Your task to perform on an android device: Open network settings Image 0: 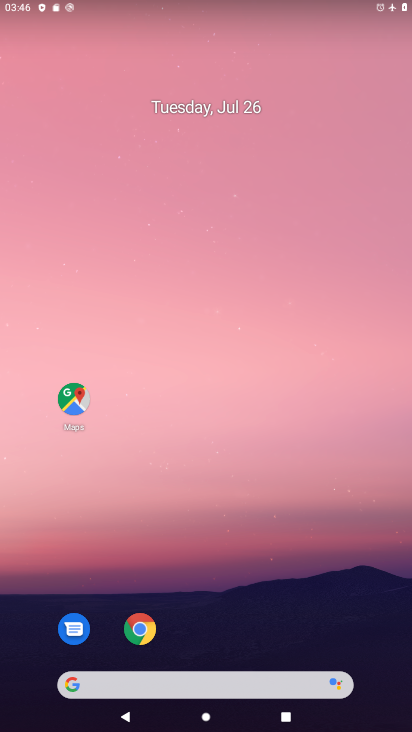
Step 0: drag from (270, 603) to (301, 36)
Your task to perform on an android device: Open network settings Image 1: 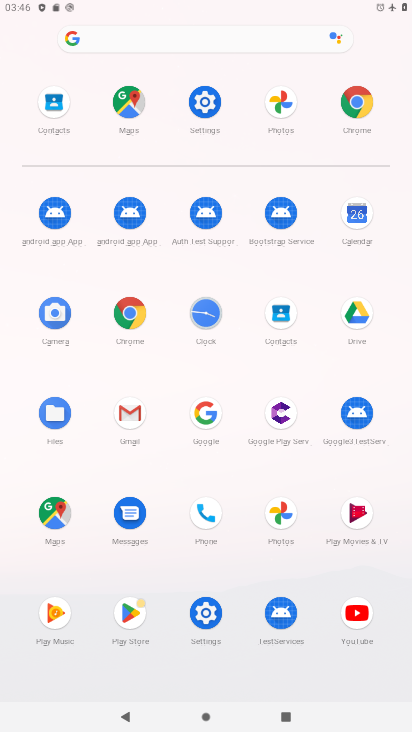
Step 1: click (202, 95)
Your task to perform on an android device: Open network settings Image 2: 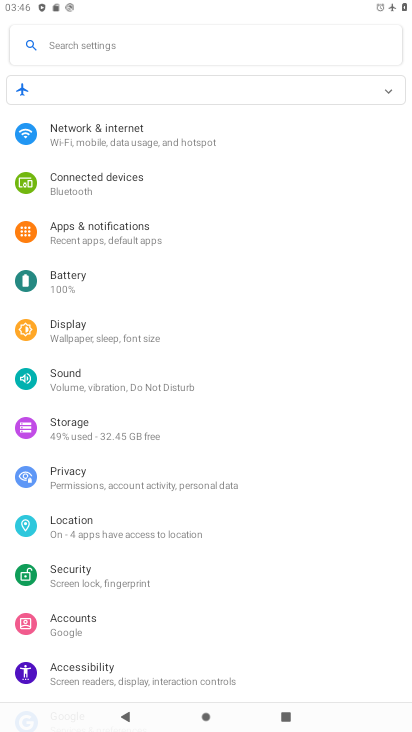
Step 2: click (94, 127)
Your task to perform on an android device: Open network settings Image 3: 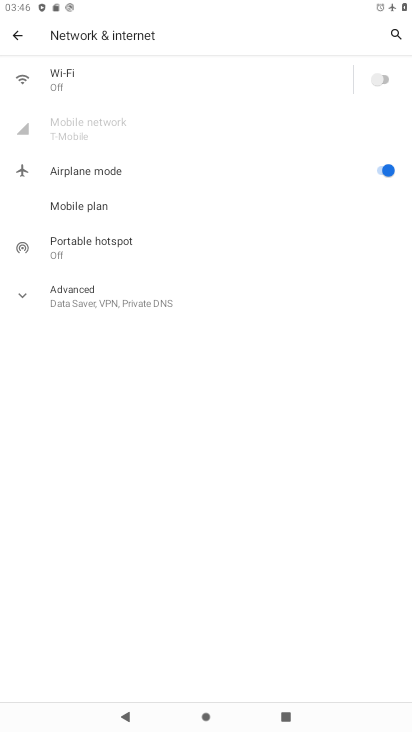
Step 3: task complete